Your task to perform on an android device: What's the weather like in Mumbai? Image 0: 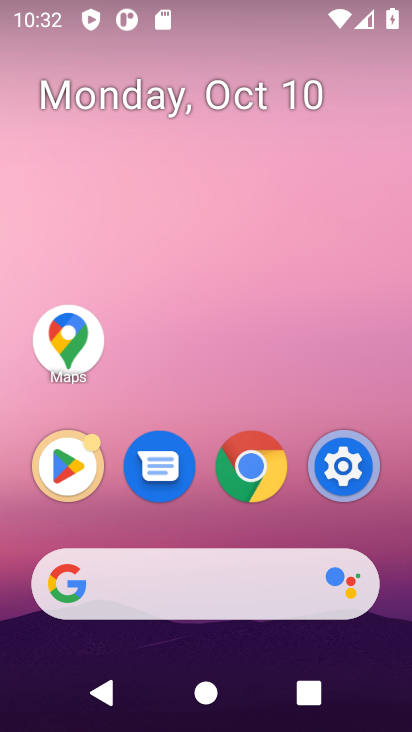
Step 0: click (62, 603)
Your task to perform on an android device: What's the weather like in Mumbai? Image 1: 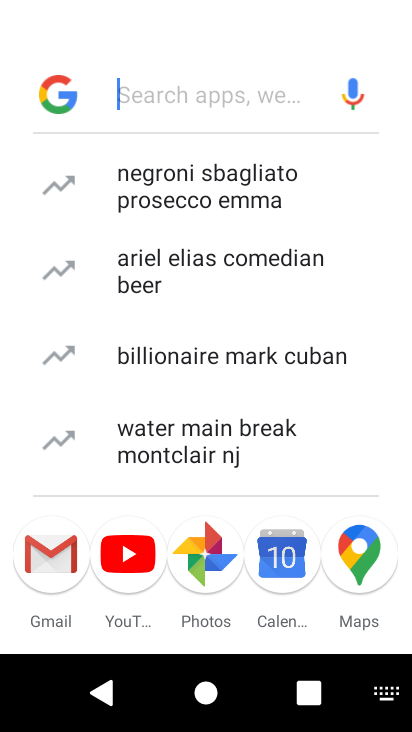
Step 1: type " weather like in Mumbai?"
Your task to perform on an android device: What's the weather like in Mumbai? Image 2: 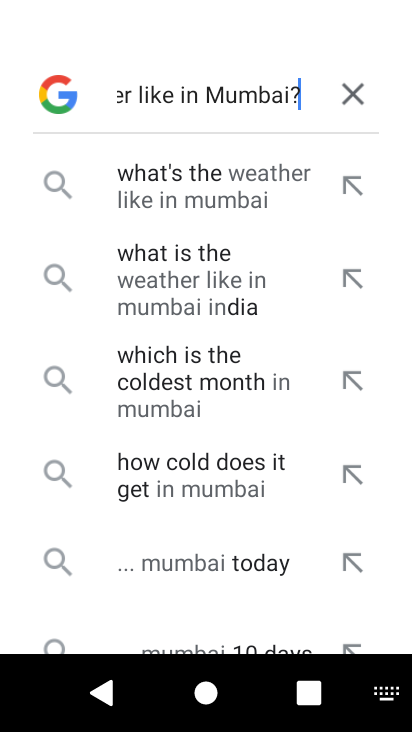
Step 2: press enter
Your task to perform on an android device: What's the weather like in Mumbai? Image 3: 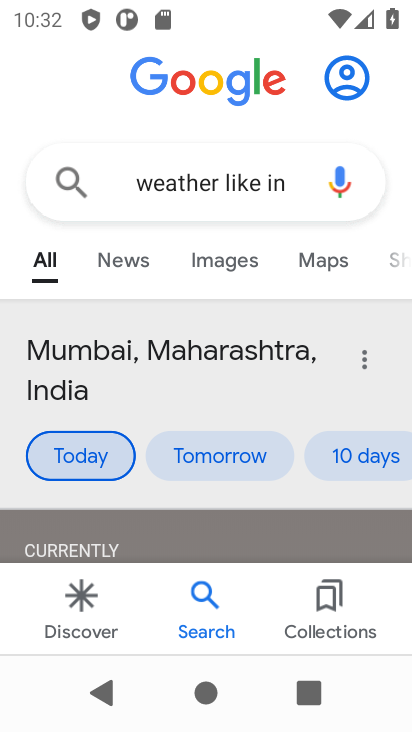
Step 3: task complete